Your task to perform on an android device: Clear all items from cart on amazon.com. Search for "razer blade" on amazon.com, select the first entry, and add it to the cart. Image 0: 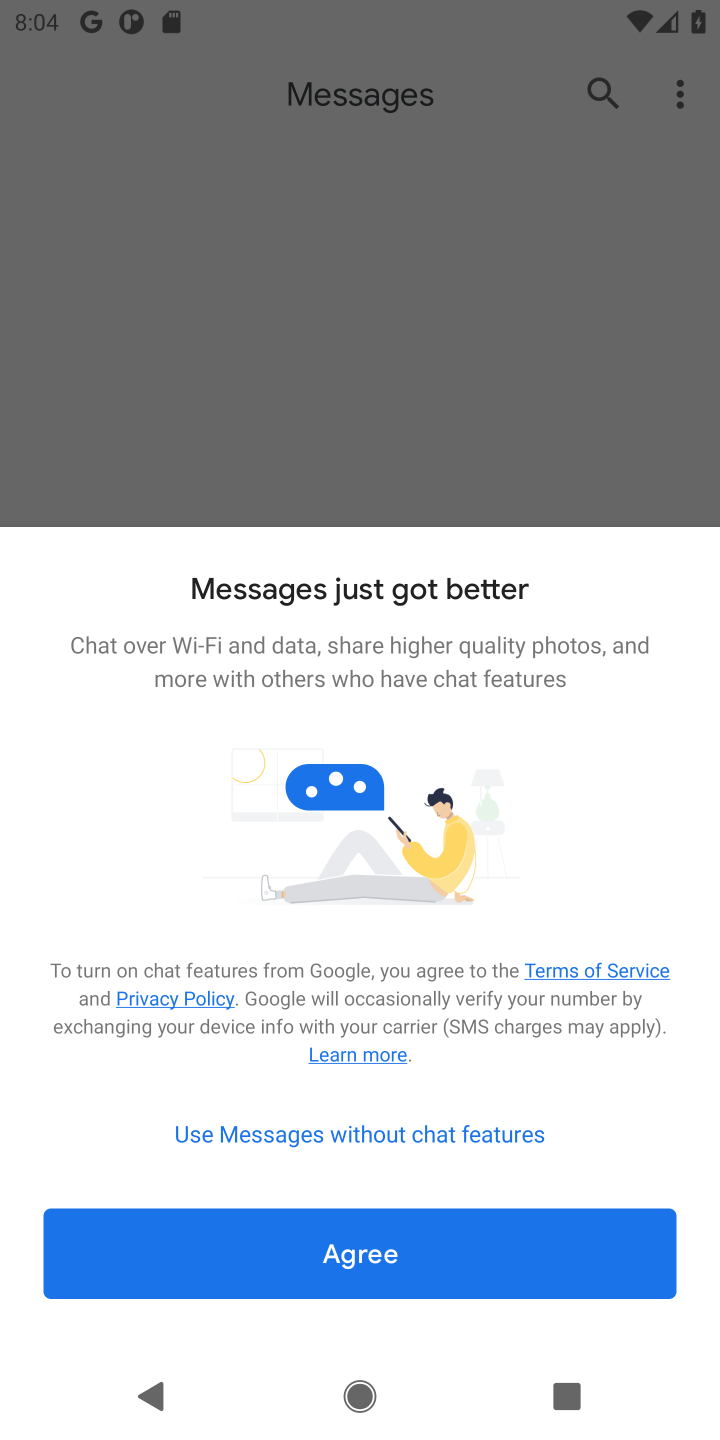
Step 0: press home button
Your task to perform on an android device: Clear all items from cart on amazon.com. Search for "razer blade" on amazon.com, select the first entry, and add it to the cart. Image 1: 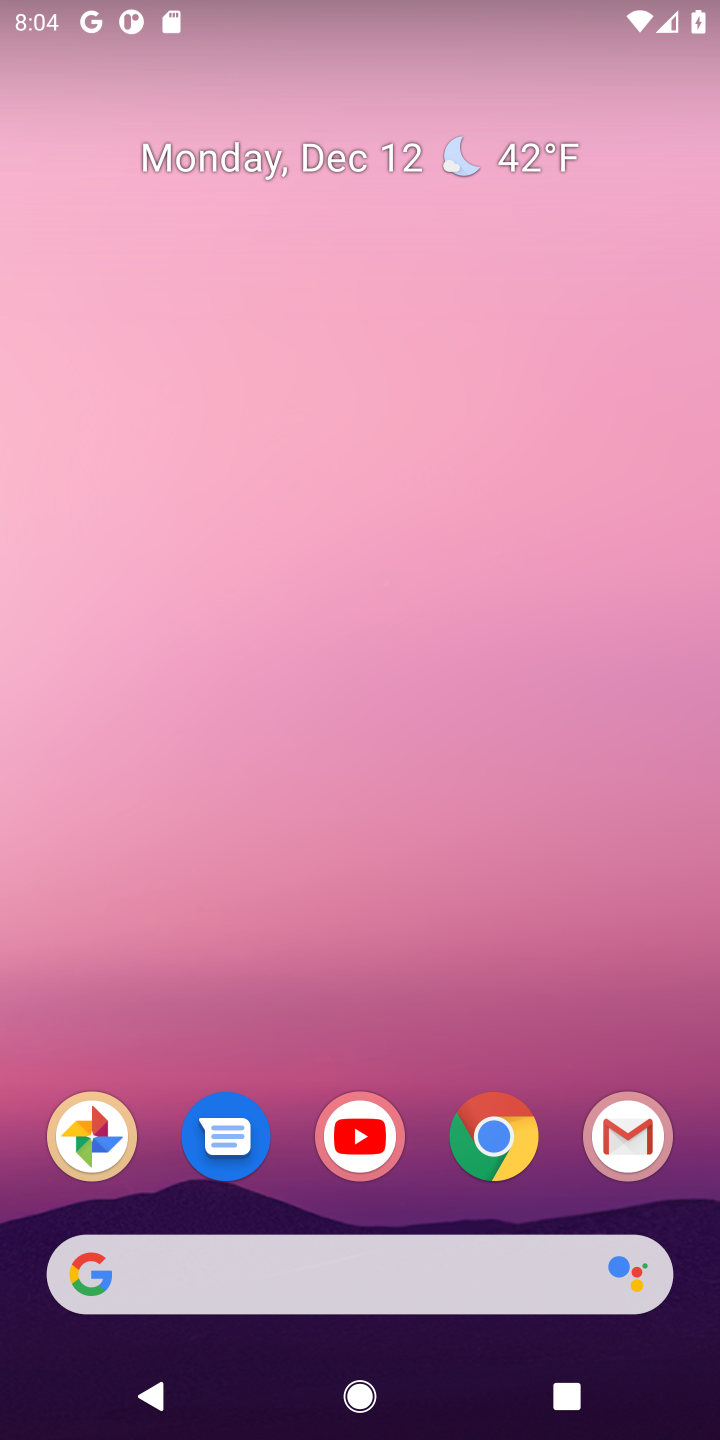
Step 1: click (489, 1137)
Your task to perform on an android device: Clear all items from cart on amazon.com. Search for "razer blade" on amazon.com, select the first entry, and add it to the cart. Image 2: 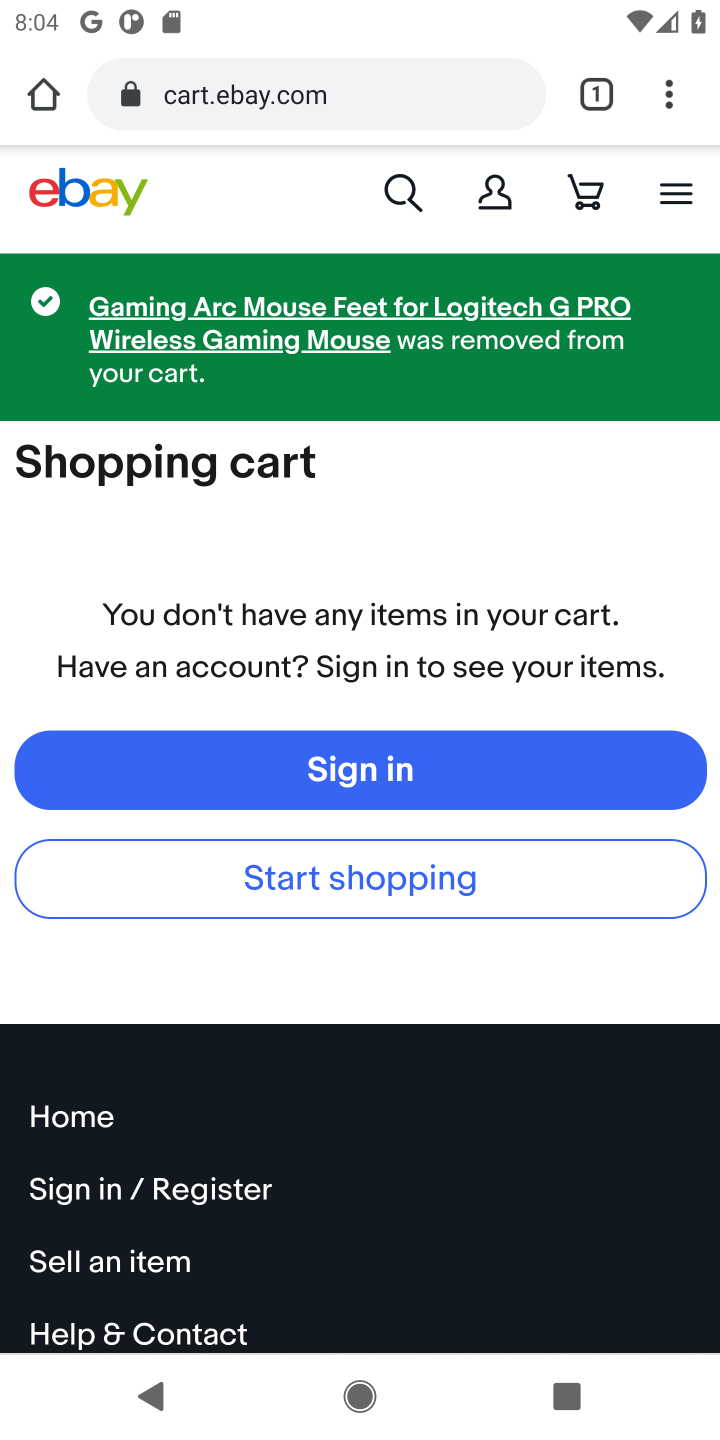
Step 2: click (269, 94)
Your task to perform on an android device: Clear all items from cart on amazon.com. Search for "razer blade" on amazon.com, select the first entry, and add it to the cart. Image 3: 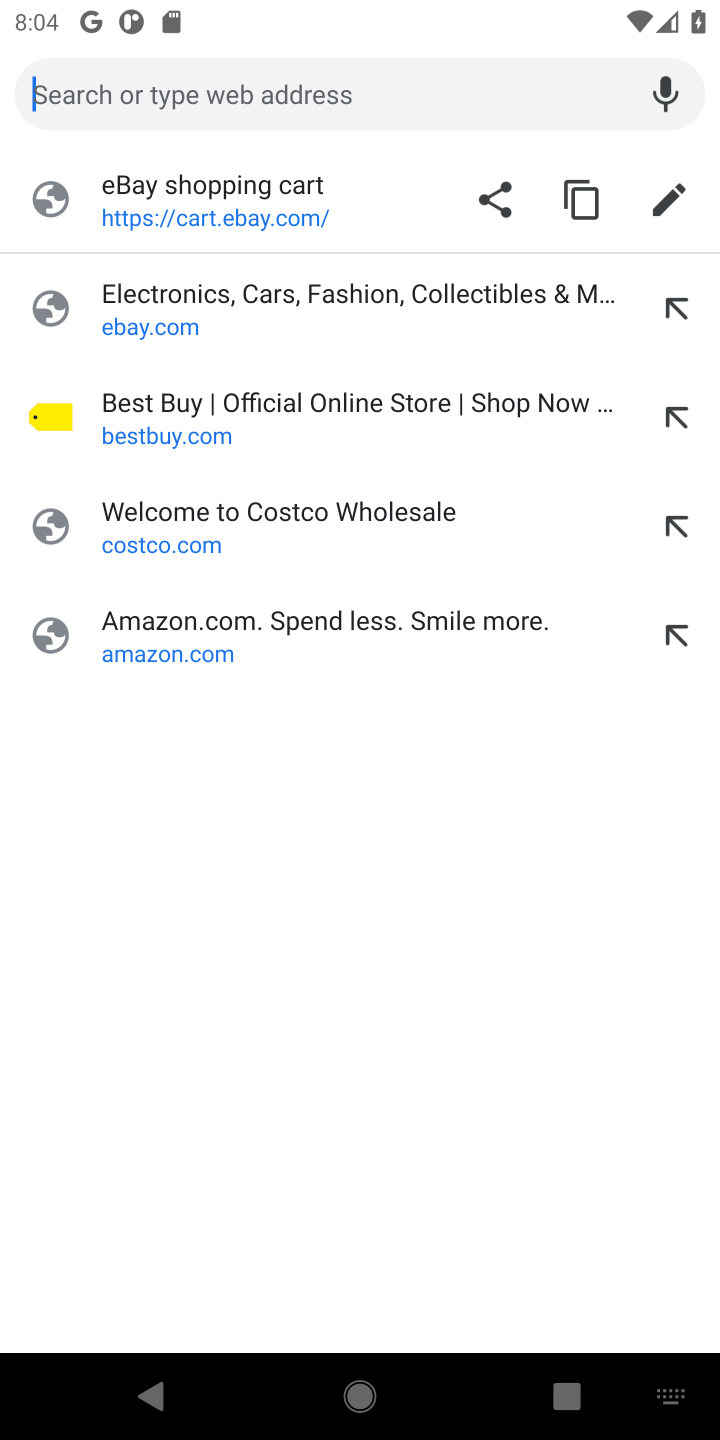
Step 3: click (122, 622)
Your task to perform on an android device: Clear all items from cart on amazon.com. Search for "razer blade" on amazon.com, select the first entry, and add it to the cart. Image 4: 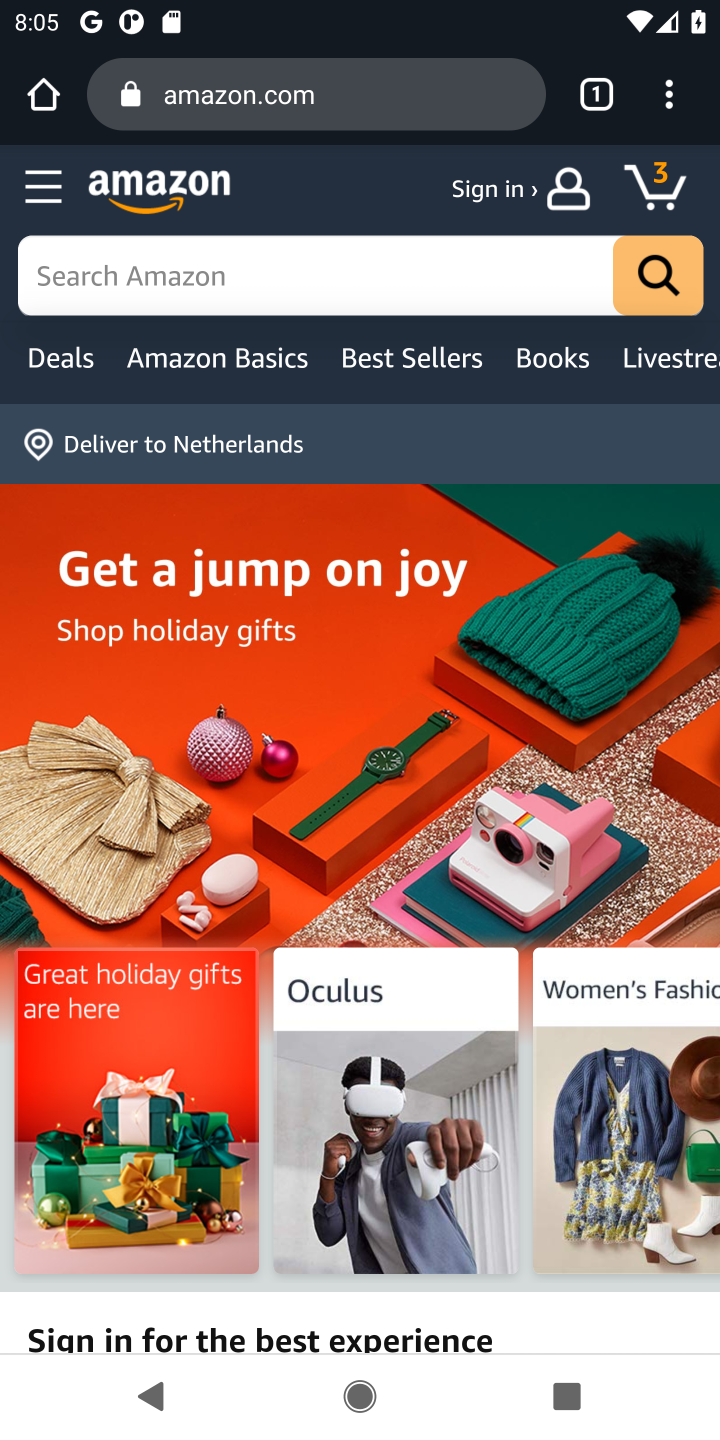
Step 4: click (656, 191)
Your task to perform on an android device: Clear all items from cart on amazon.com. Search for "razer blade" on amazon.com, select the first entry, and add it to the cart. Image 5: 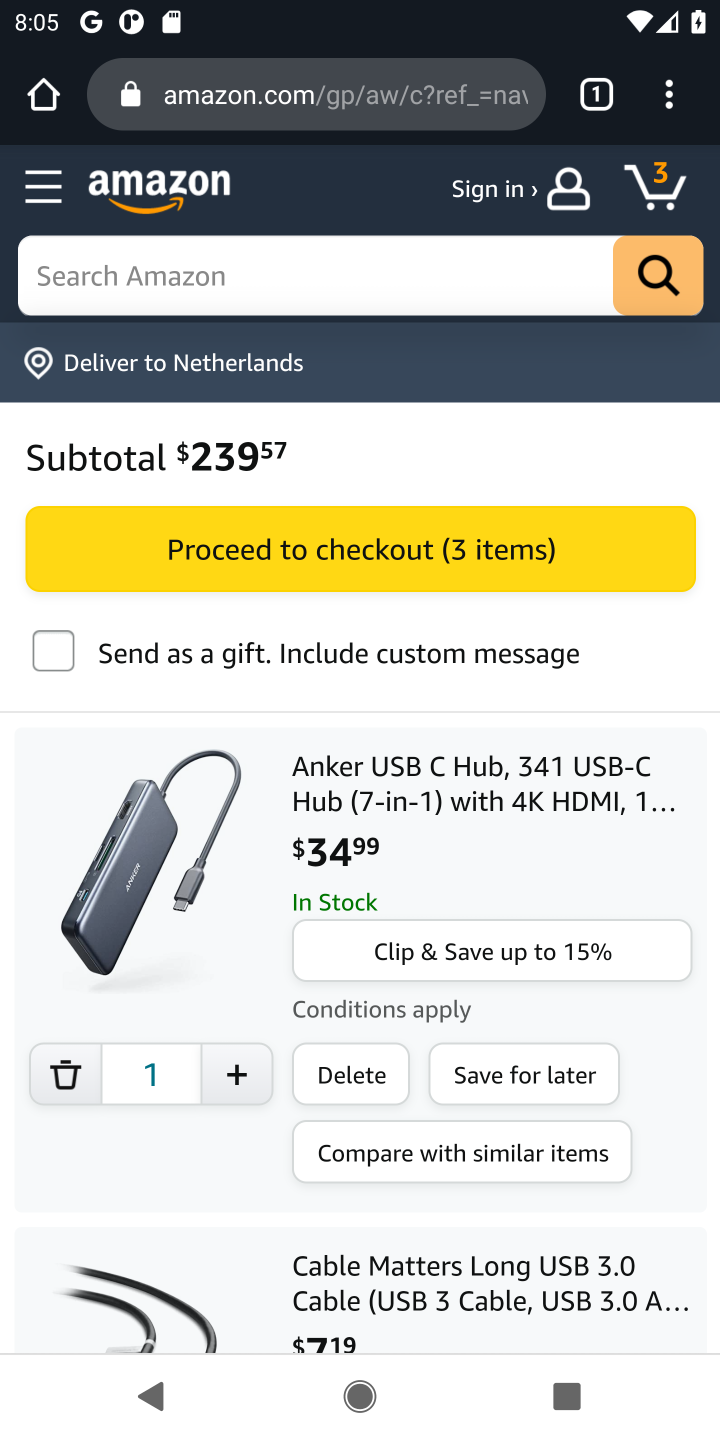
Step 5: click (347, 1077)
Your task to perform on an android device: Clear all items from cart on amazon.com. Search for "razer blade" on amazon.com, select the first entry, and add it to the cart. Image 6: 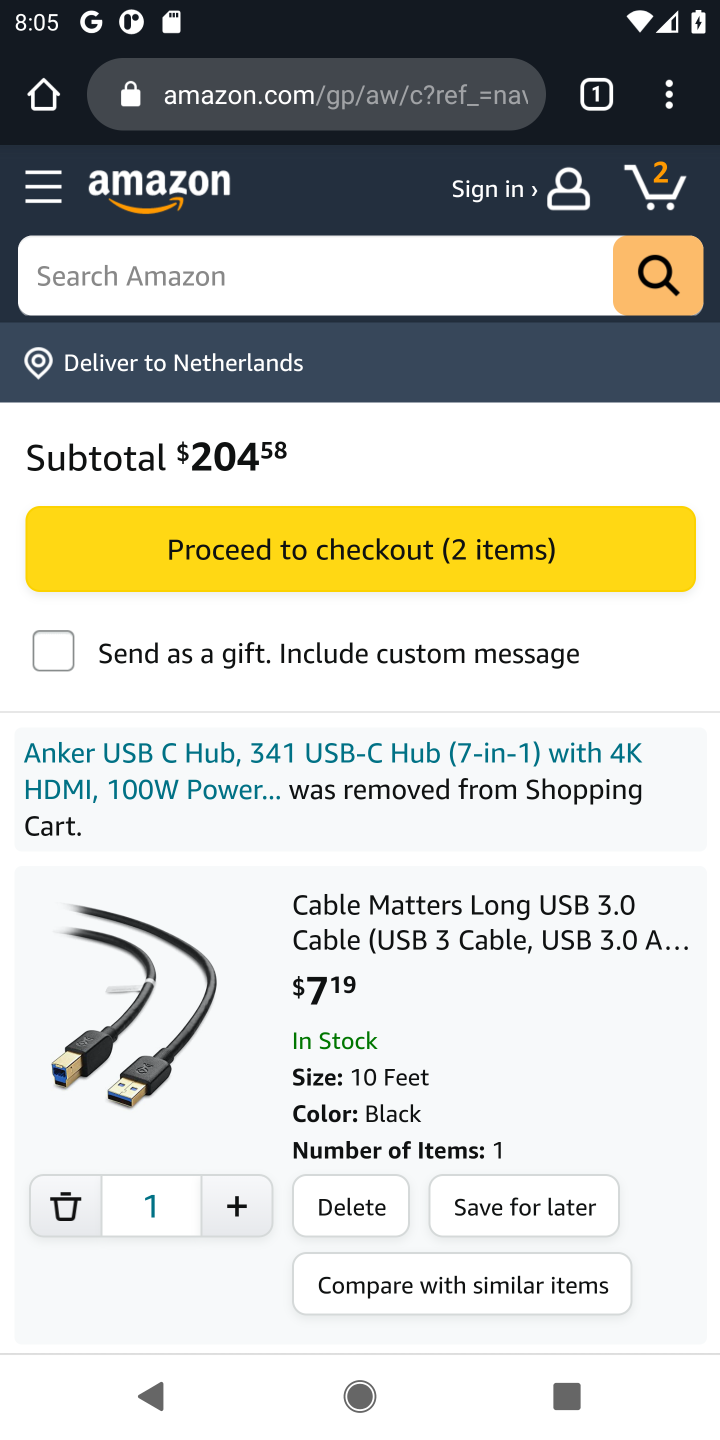
Step 6: click (347, 1197)
Your task to perform on an android device: Clear all items from cart on amazon.com. Search for "razer blade" on amazon.com, select the first entry, and add it to the cart. Image 7: 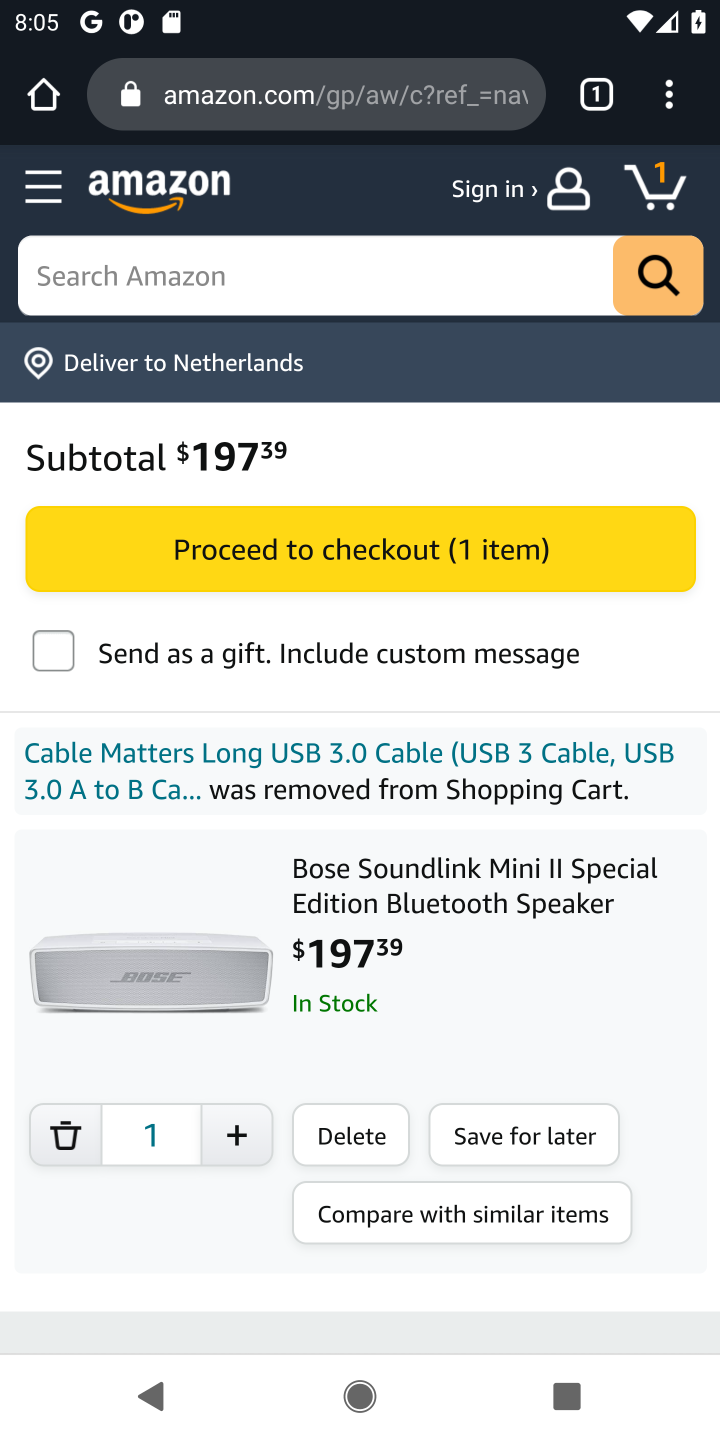
Step 7: click (363, 1143)
Your task to perform on an android device: Clear all items from cart on amazon.com. Search for "razer blade" on amazon.com, select the first entry, and add it to the cart. Image 8: 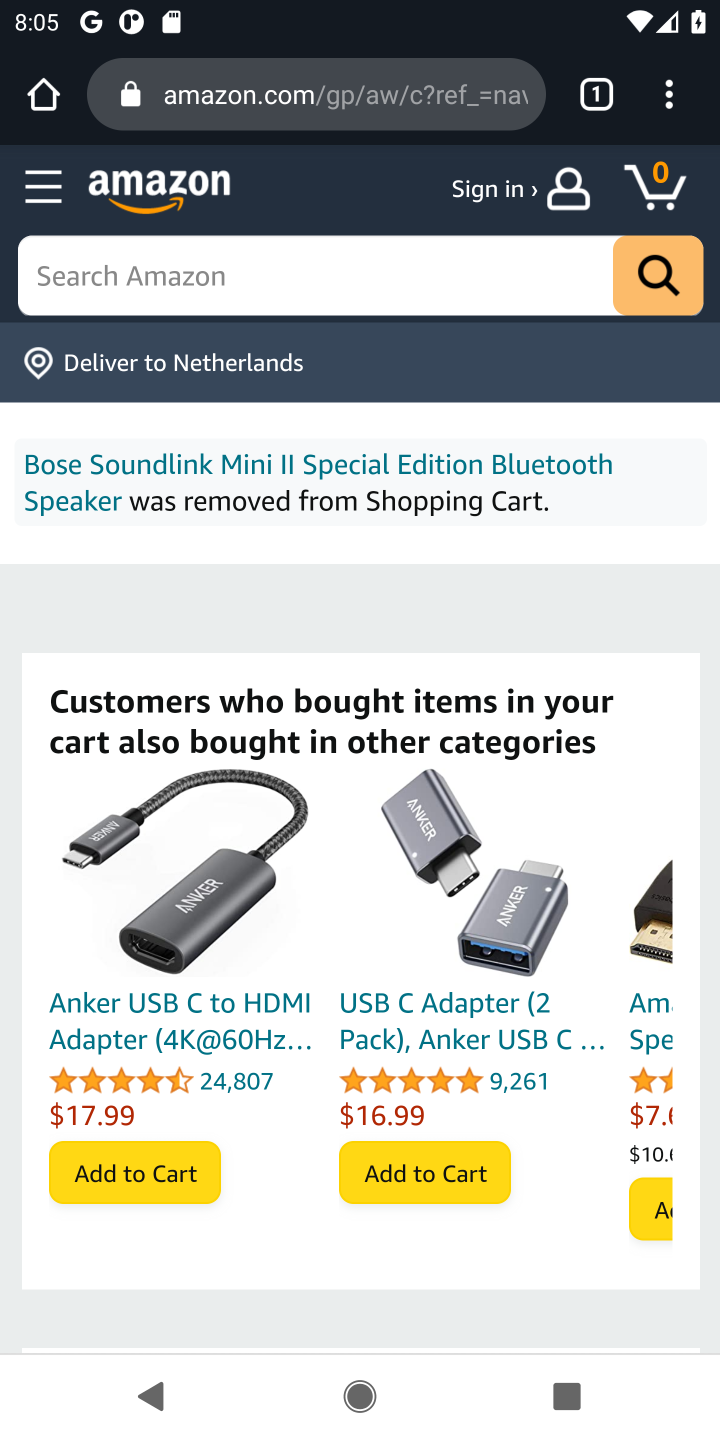
Step 8: click (228, 275)
Your task to perform on an android device: Clear all items from cart on amazon.com. Search for "razer blade" on amazon.com, select the first entry, and add it to the cart. Image 9: 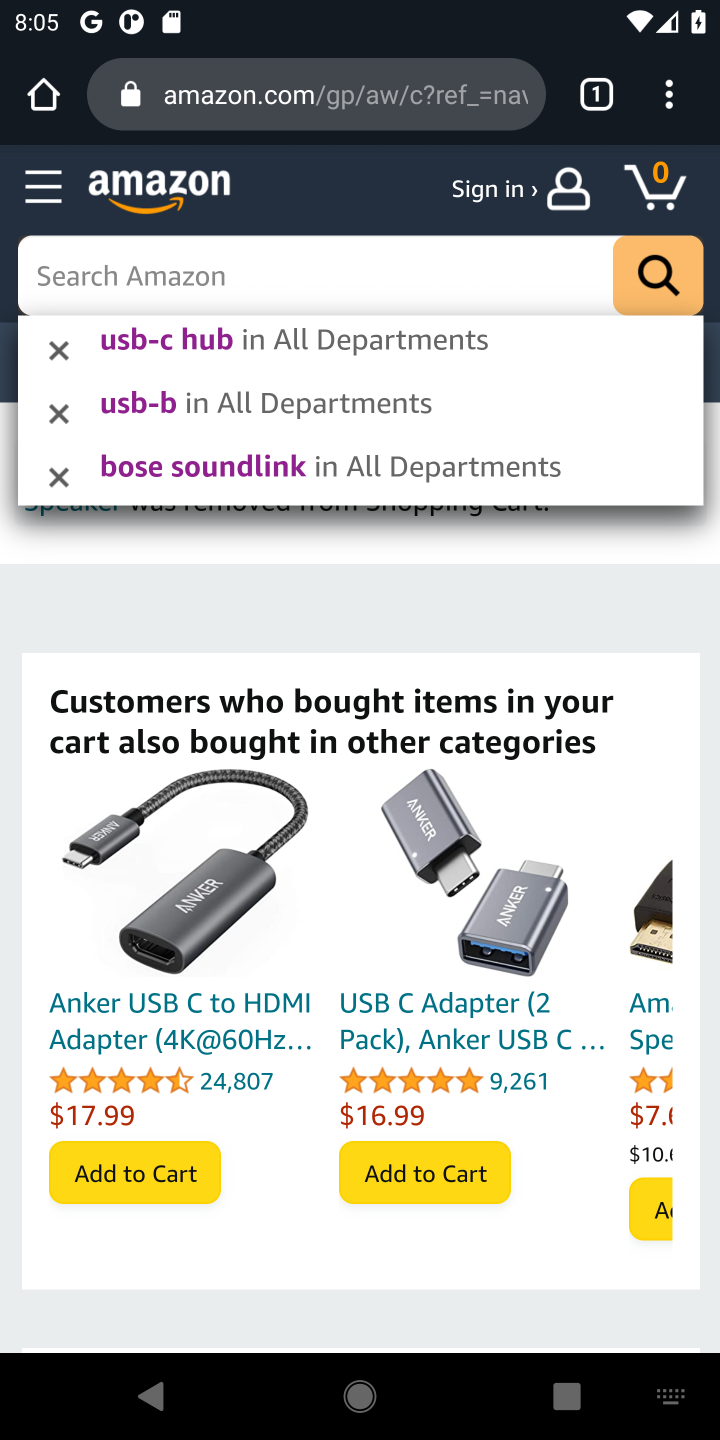
Step 9: type "razer blade"
Your task to perform on an android device: Clear all items from cart on amazon.com. Search for "razer blade" on amazon.com, select the first entry, and add it to the cart. Image 10: 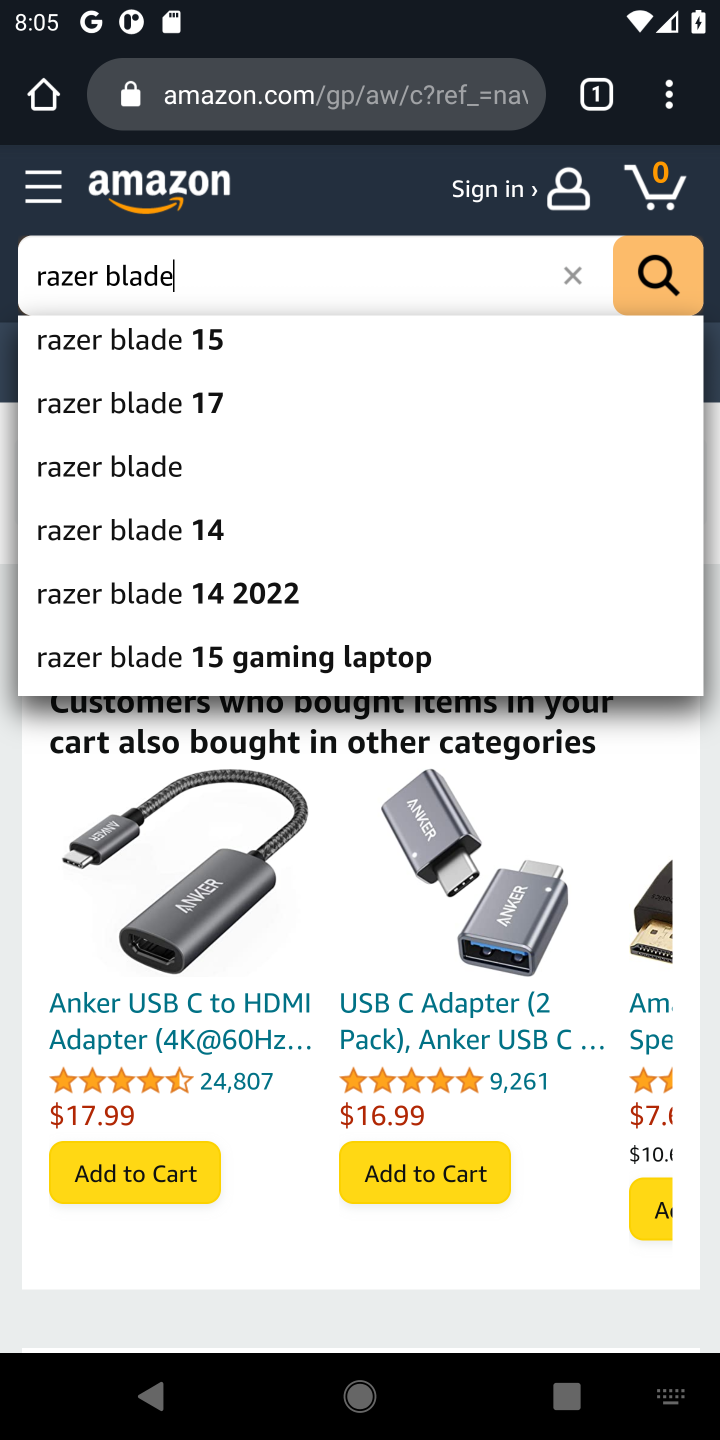
Step 10: click (86, 473)
Your task to perform on an android device: Clear all items from cart on amazon.com. Search for "razer blade" on amazon.com, select the first entry, and add it to the cart. Image 11: 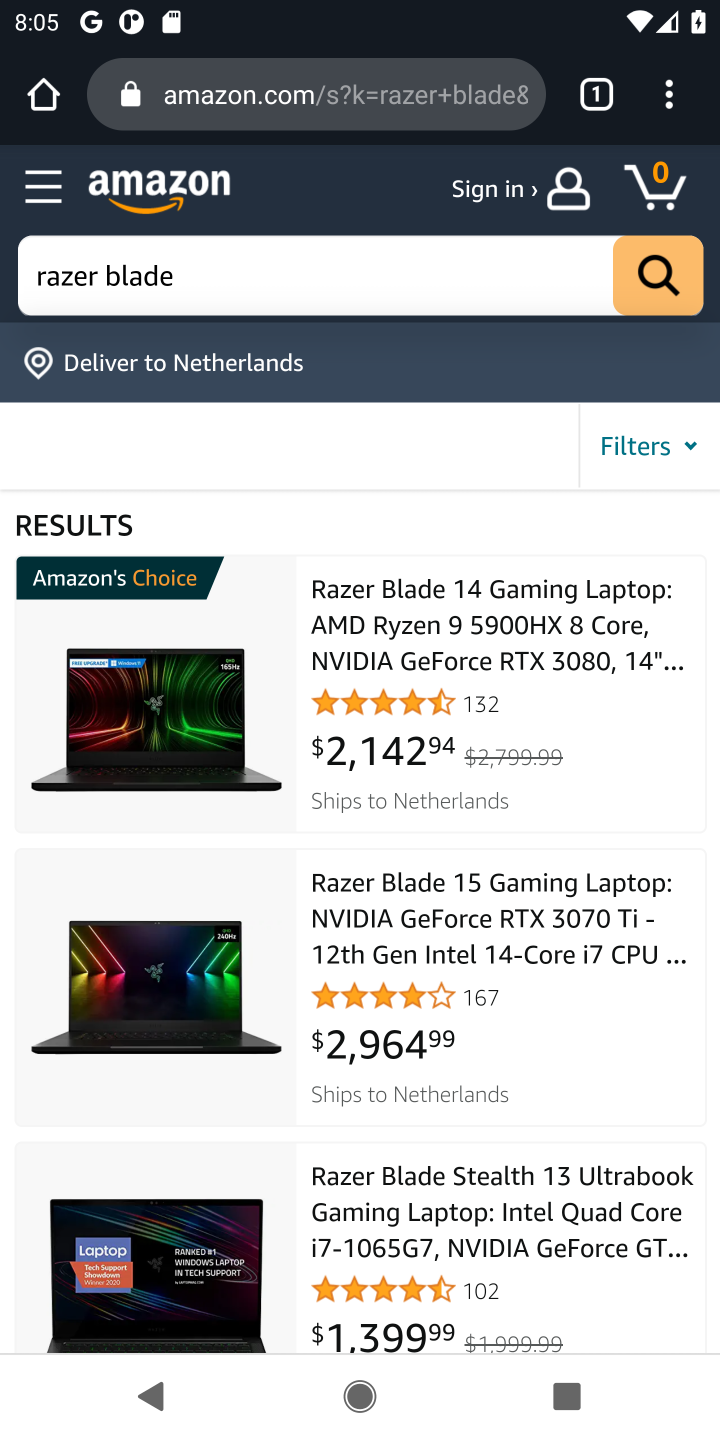
Step 11: click (392, 637)
Your task to perform on an android device: Clear all items from cart on amazon.com. Search for "razer blade" on amazon.com, select the first entry, and add it to the cart. Image 12: 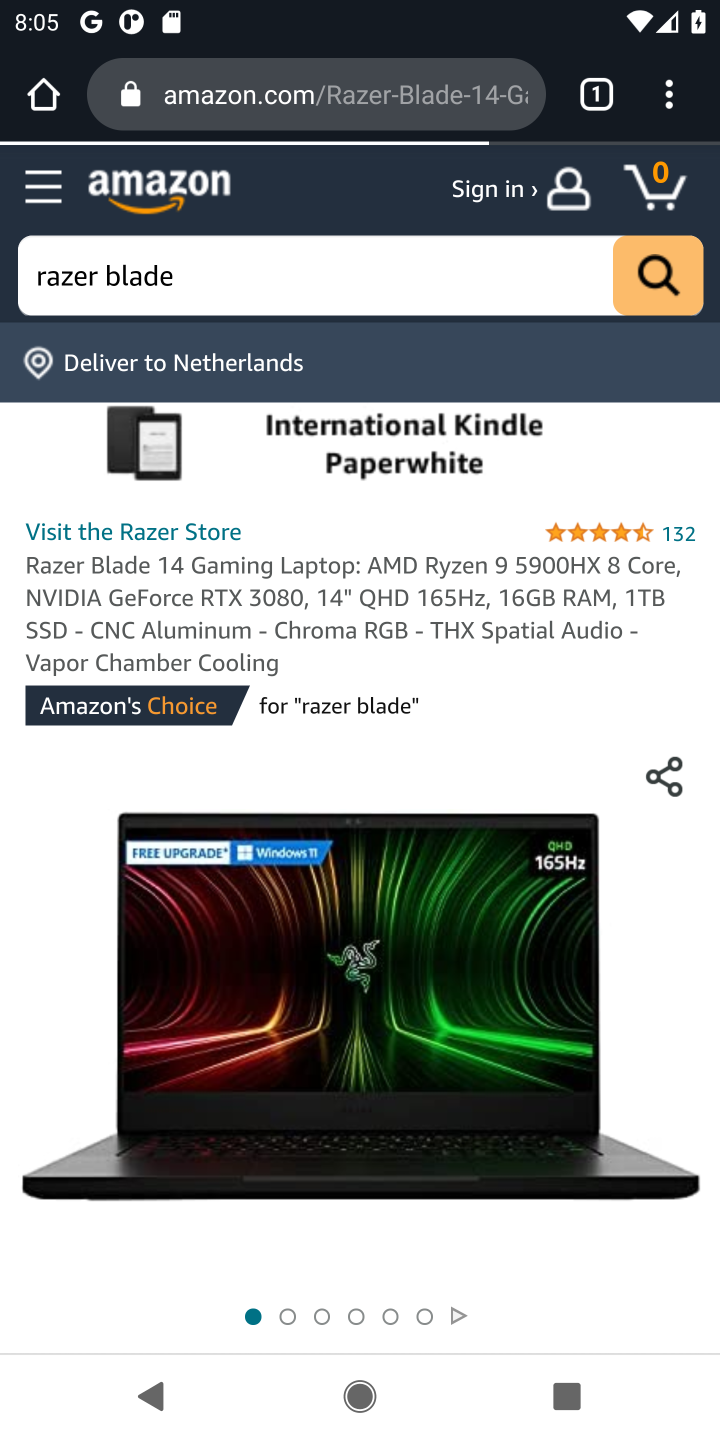
Step 12: drag from (274, 977) to (293, 423)
Your task to perform on an android device: Clear all items from cart on amazon.com. Search for "razer blade" on amazon.com, select the first entry, and add it to the cart. Image 13: 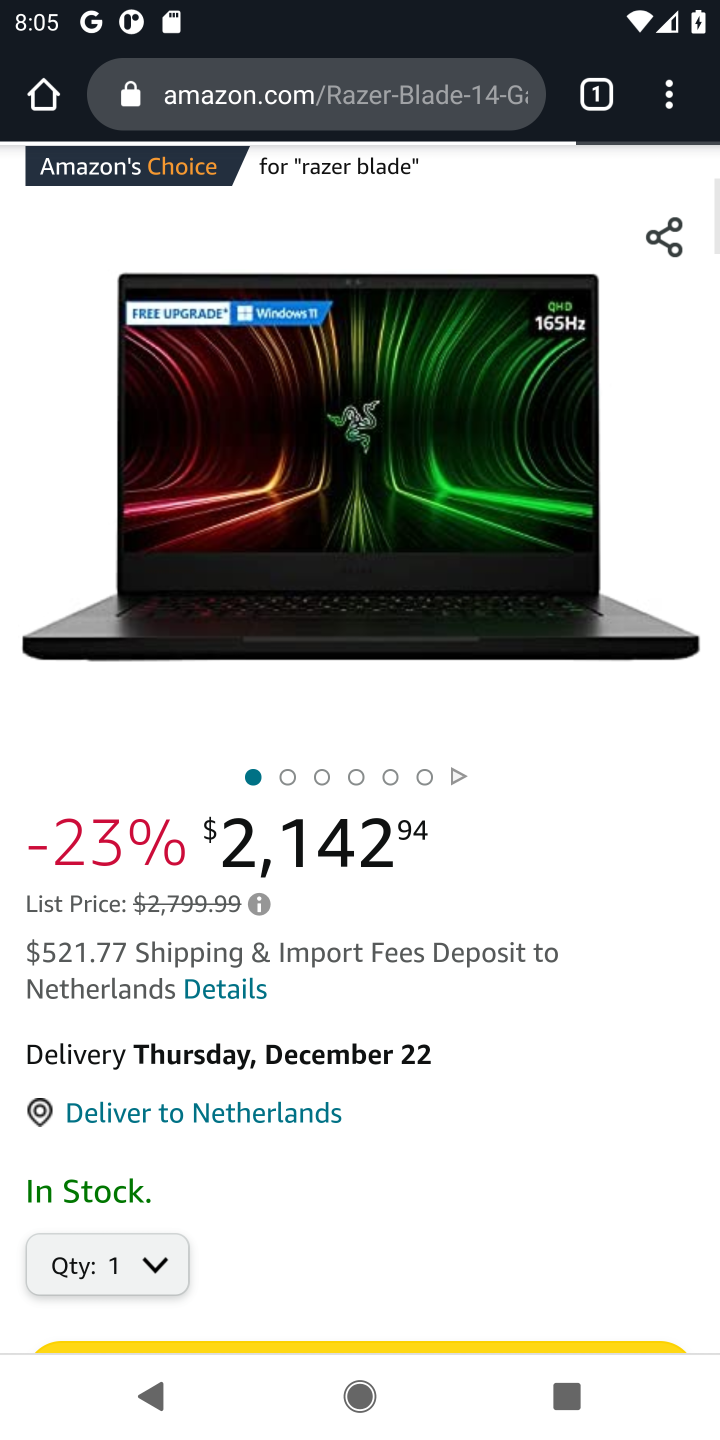
Step 13: drag from (236, 1034) to (257, 482)
Your task to perform on an android device: Clear all items from cart on amazon.com. Search for "razer blade" on amazon.com, select the first entry, and add it to the cart. Image 14: 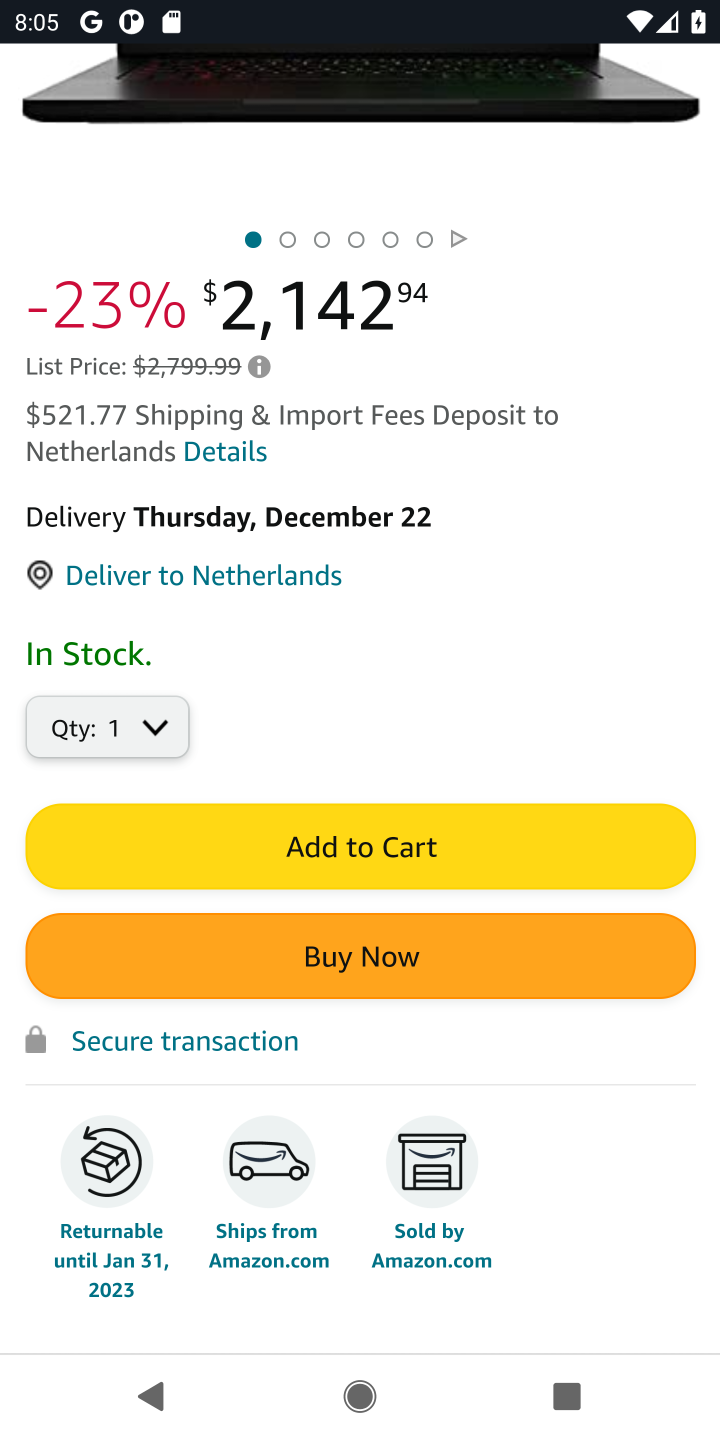
Step 14: click (296, 837)
Your task to perform on an android device: Clear all items from cart on amazon.com. Search for "razer blade" on amazon.com, select the first entry, and add it to the cart. Image 15: 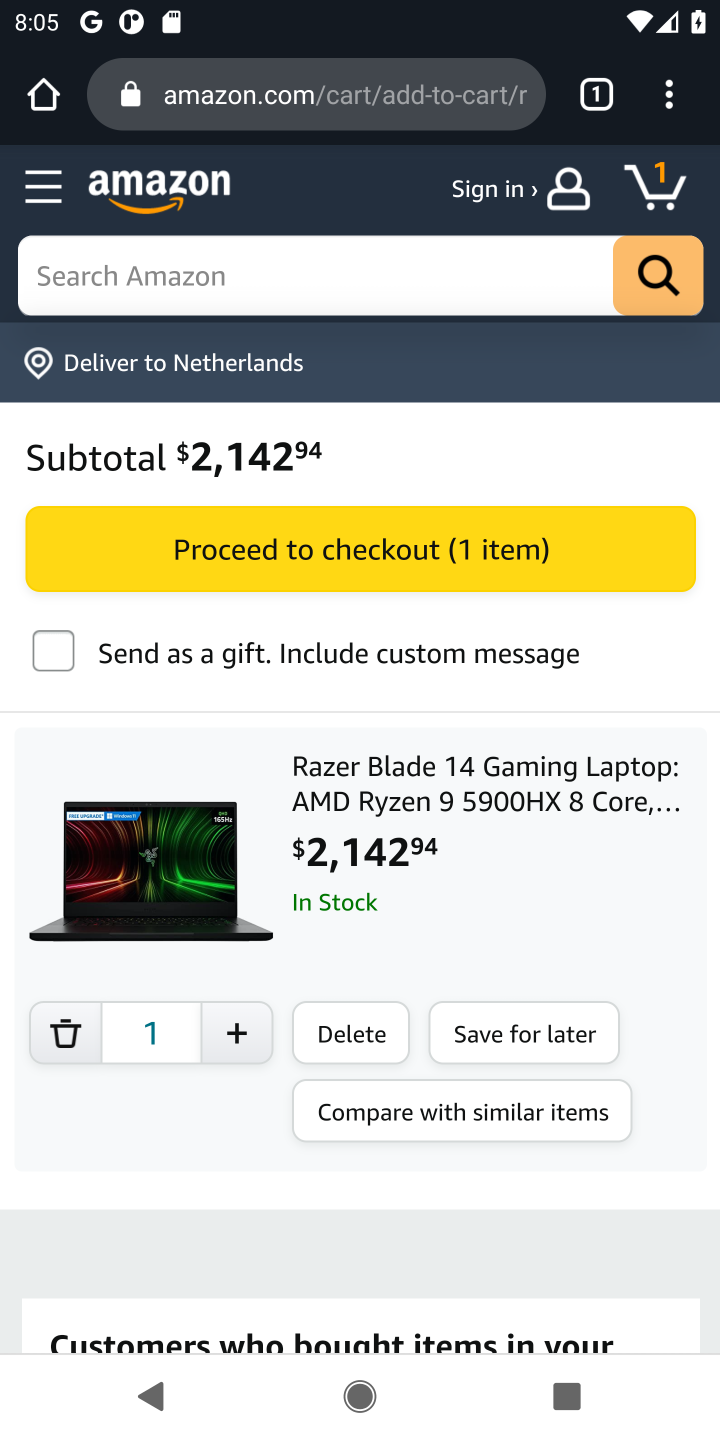
Step 15: task complete